Your task to perform on an android device: Go to settings Image 0: 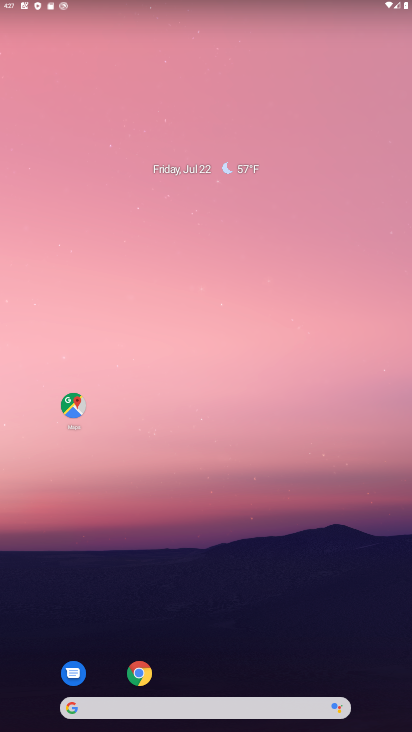
Step 0: drag from (355, 562) to (197, 15)
Your task to perform on an android device: Go to settings Image 1: 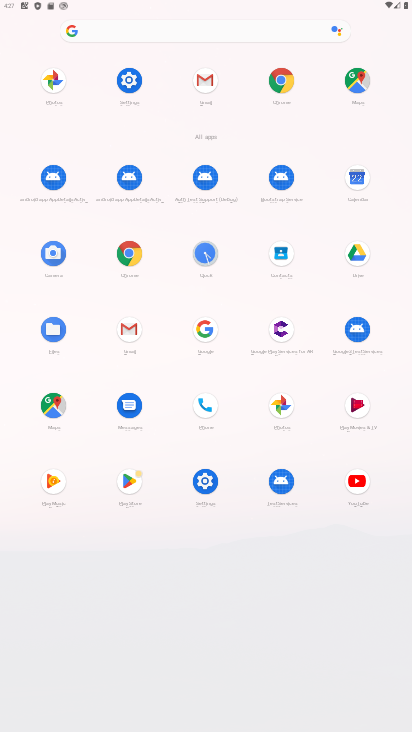
Step 1: click (204, 488)
Your task to perform on an android device: Go to settings Image 2: 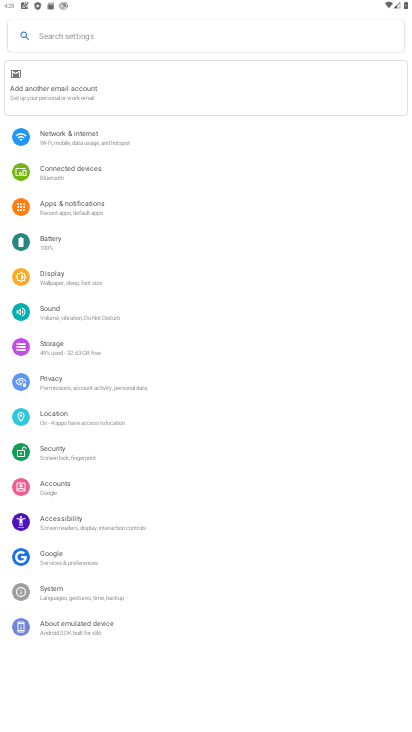
Step 2: task complete